Your task to perform on an android device: Go to battery settings Image 0: 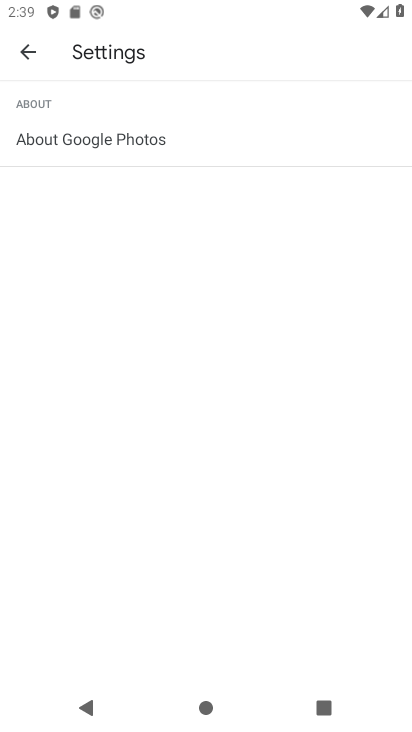
Step 0: press home button
Your task to perform on an android device: Go to battery settings Image 1: 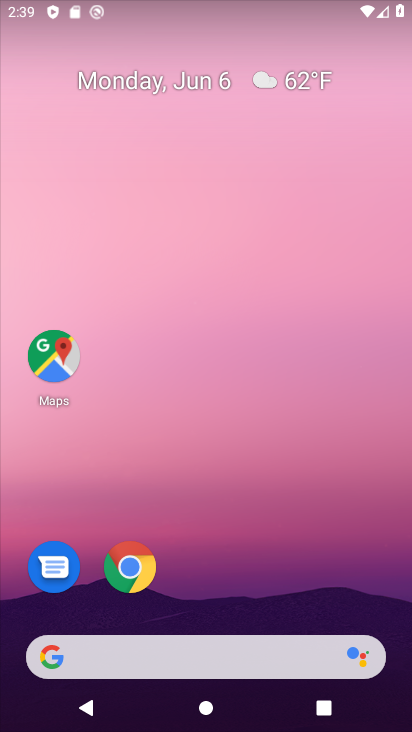
Step 1: drag from (222, 633) to (264, 165)
Your task to perform on an android device: Go to battery settings Image 2: 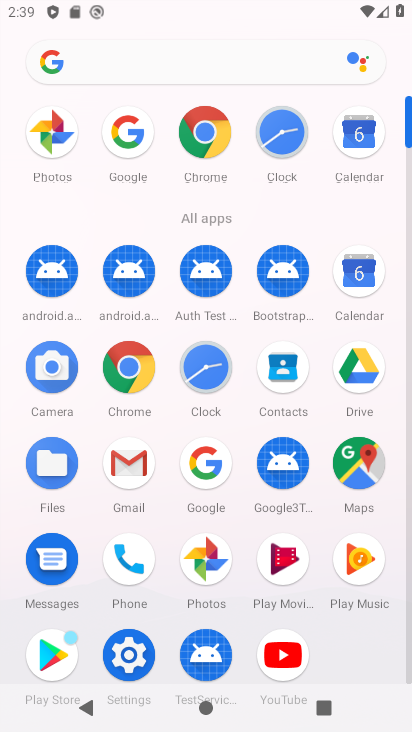
Step 2: click (121, 675)
Your task to perform on an android device: Go to battery settings Image 3: 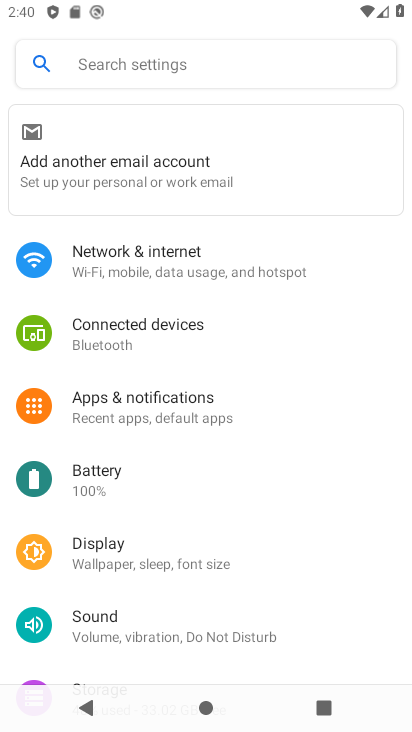
Step 3: click (88, 480)
Your task to perform on an android device: Go to battery settings Image 4: 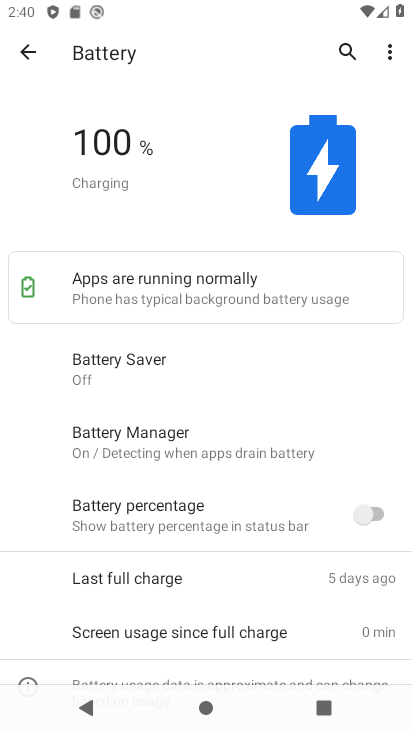
Step 4: task complete